Your task to perform on an android device: turn off javascript in the chrome app Image 0: 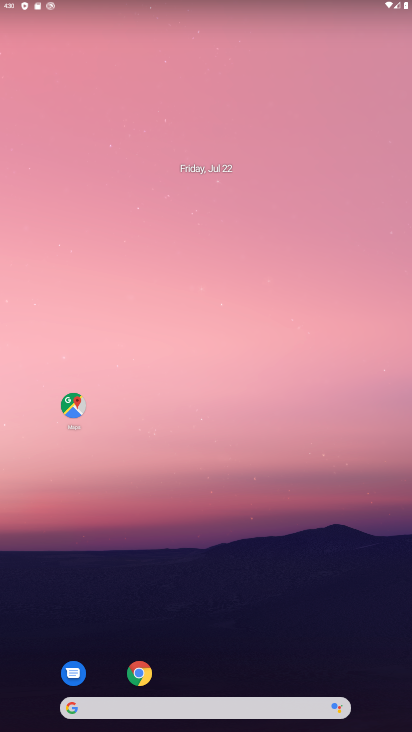
Step 0: press home button
Your task to perform on an android device: turn off javascript in the chrome app Image 1: 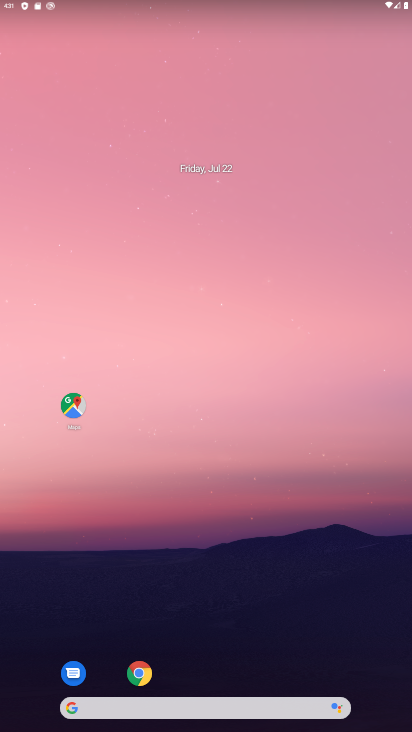
Step 1: click (147, 673)
Your task to perform on an android device: turn off javascript in the chrome app Image 2: 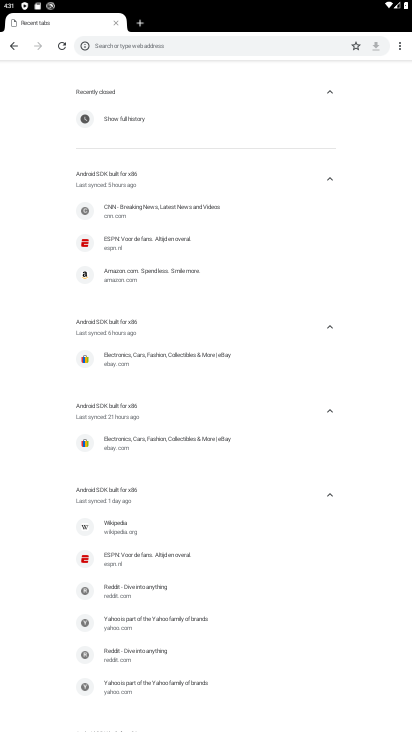
Step 2: drag from (399, 42) to (317, 205)
Your task to perform on an android device: turn off javascript in the chrome app Image 3: 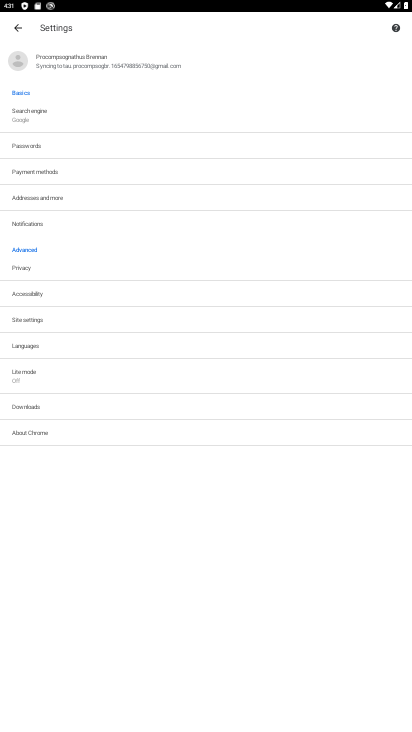
Step 3: click (49, 319)
Your task to perform on an android device: turn off javascript in the chrome app Image 4: 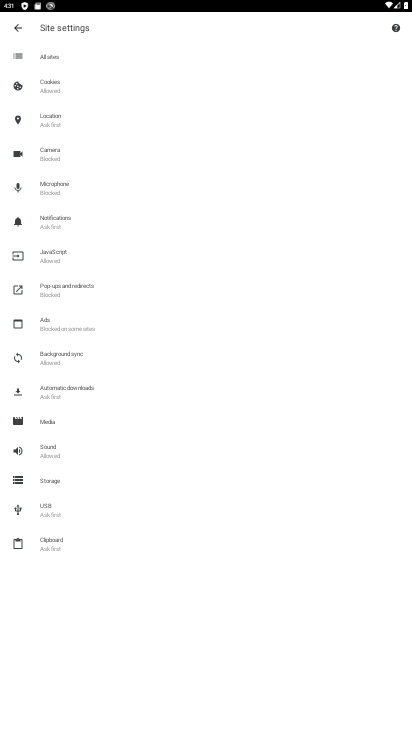
Step 4: click (52, 254)
Your task to perform on an android device: turn off javascript in the chrome app Image 5: 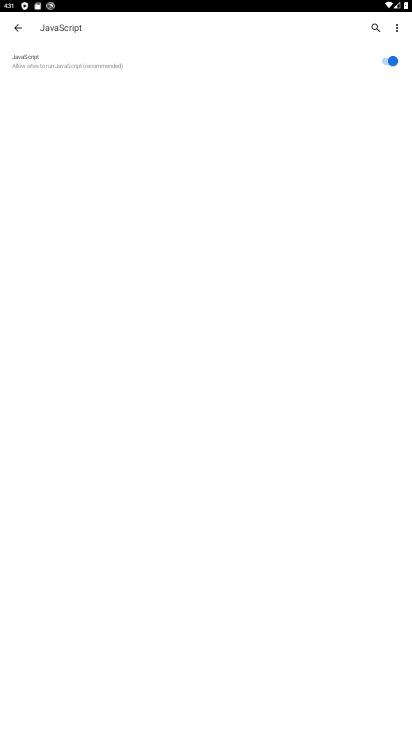
Step 5: click (387, 55)
Your task to perform on an android device: turn off javascript in the chrome app Image 6: 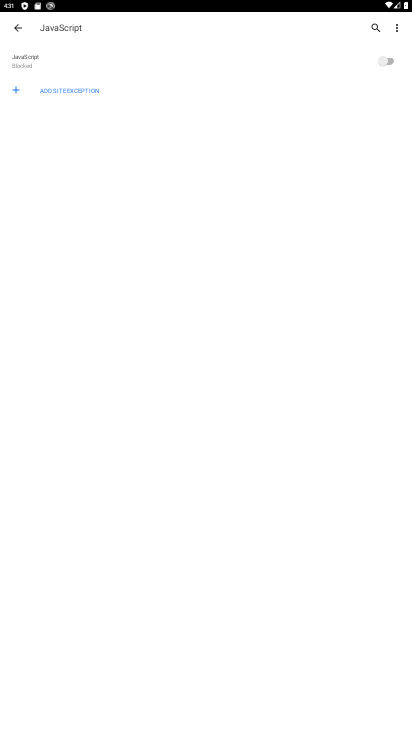
Step 6: task complete